Your task to perform on an android device: Search for "asus rog" on costco.com, select the first entry, and add it to the cart. Image 0: 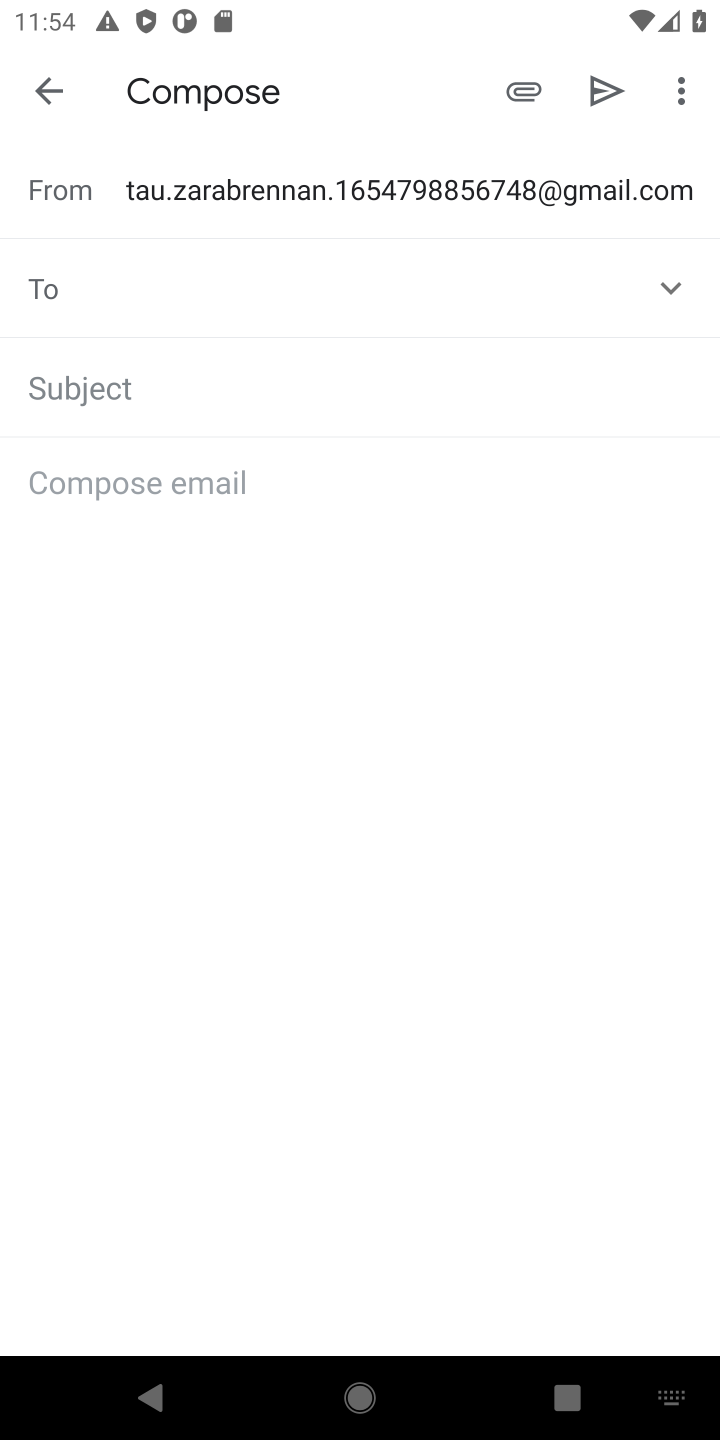
Step 0: press home button
Your task to perform on an android device: Search for "asus rog" on costco.com, select the first entry, and add it to the cart. Image 1: 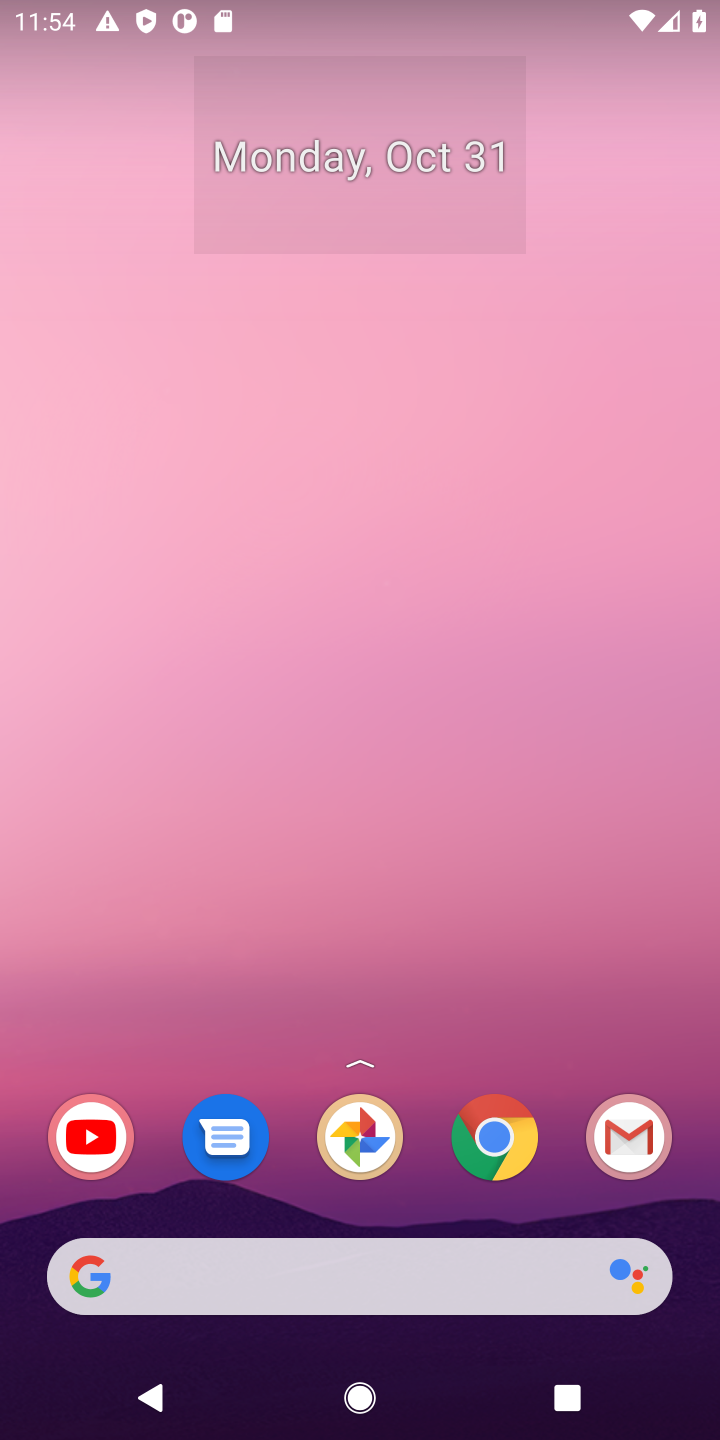
Step 1: click (492, 1138)
Your task to perform on an android device: Search for "asus rog" on costco.com, select the first entry, and add it to the cart. Image 2: 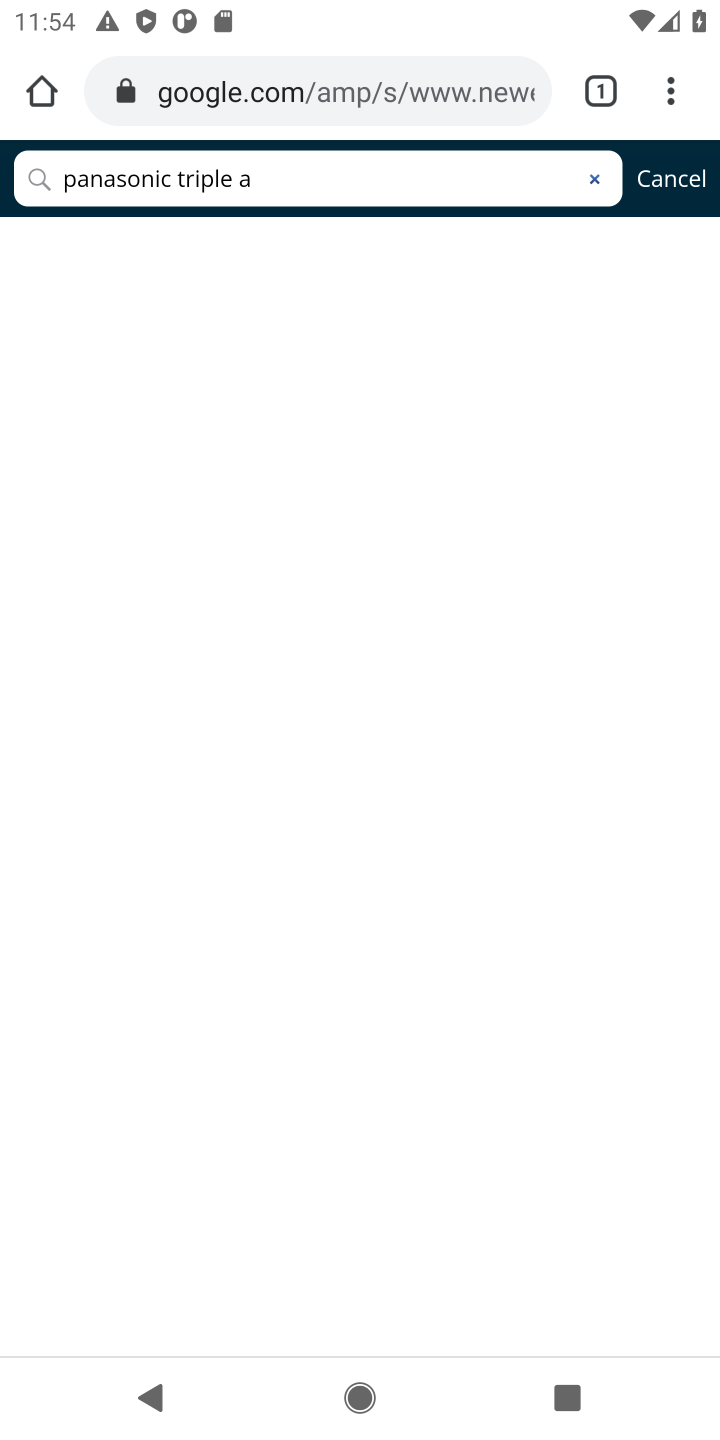
Step 2: click (448, 96)
Your task to perform on an android device: Search for "asus rog" on costco.com, select the first entry, and add it to the cart. Image 3: 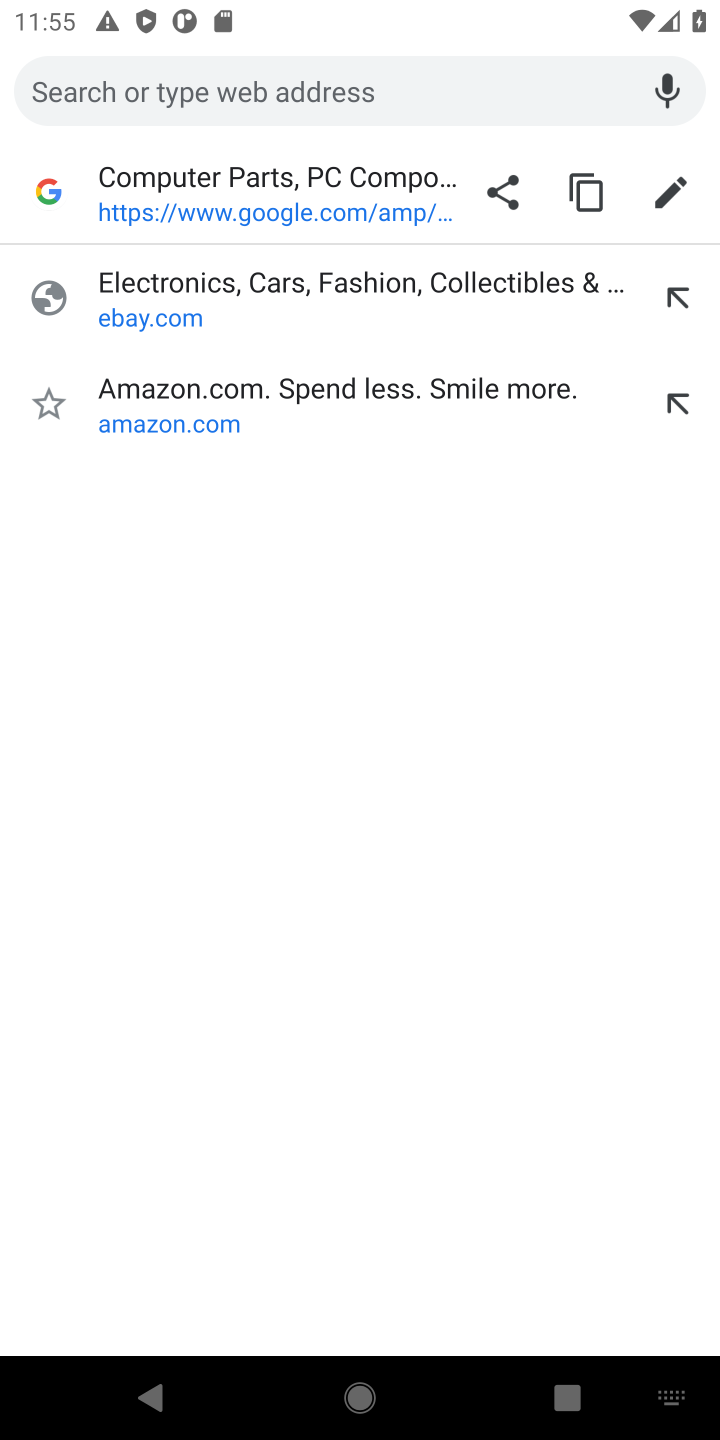
Step 3: type "costco.com"
Your task to perform on an android device: Search for "asus rog" on costco.com, select the first entry, and add it to the cart. Image 4: 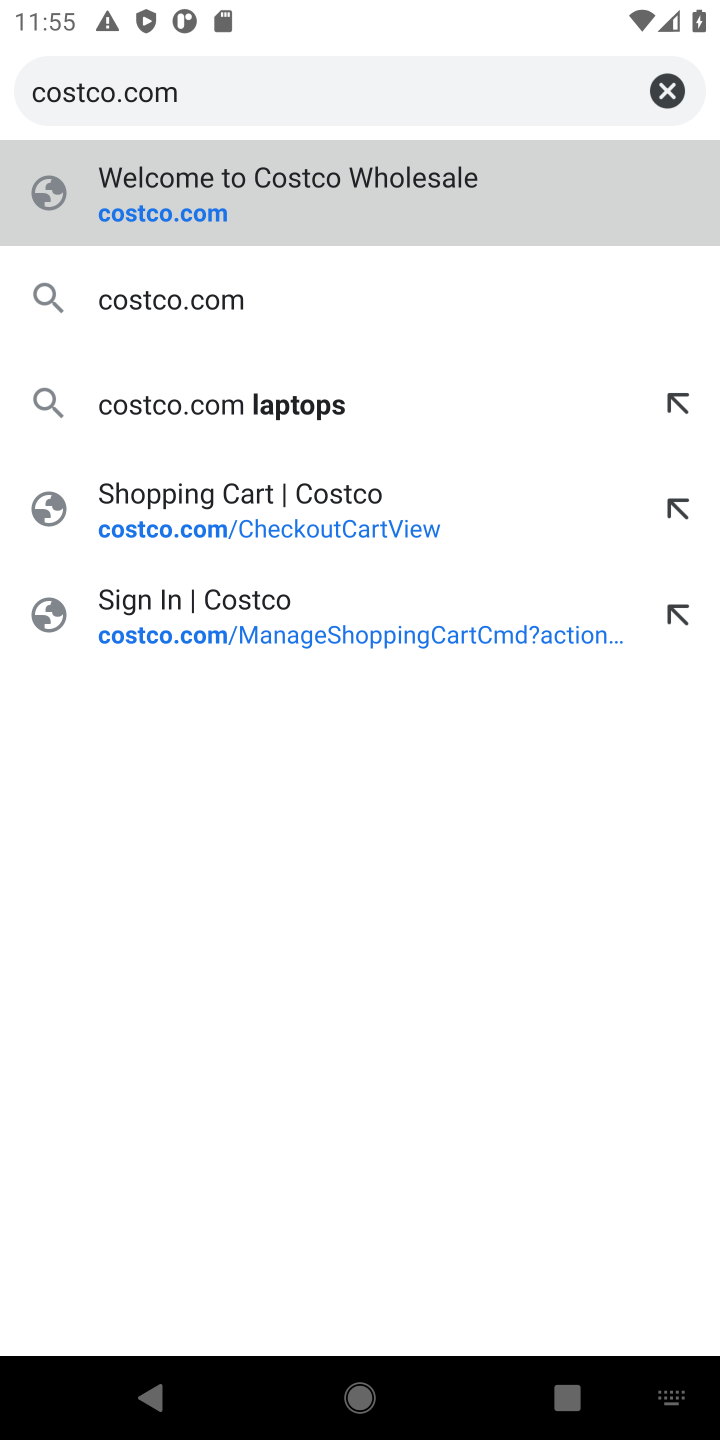
Step 4: click (218, 304)
Your task to perform on an android device: Search for "asus rog" on costco.com, select the first entry, and add it to the cart. Image 5: 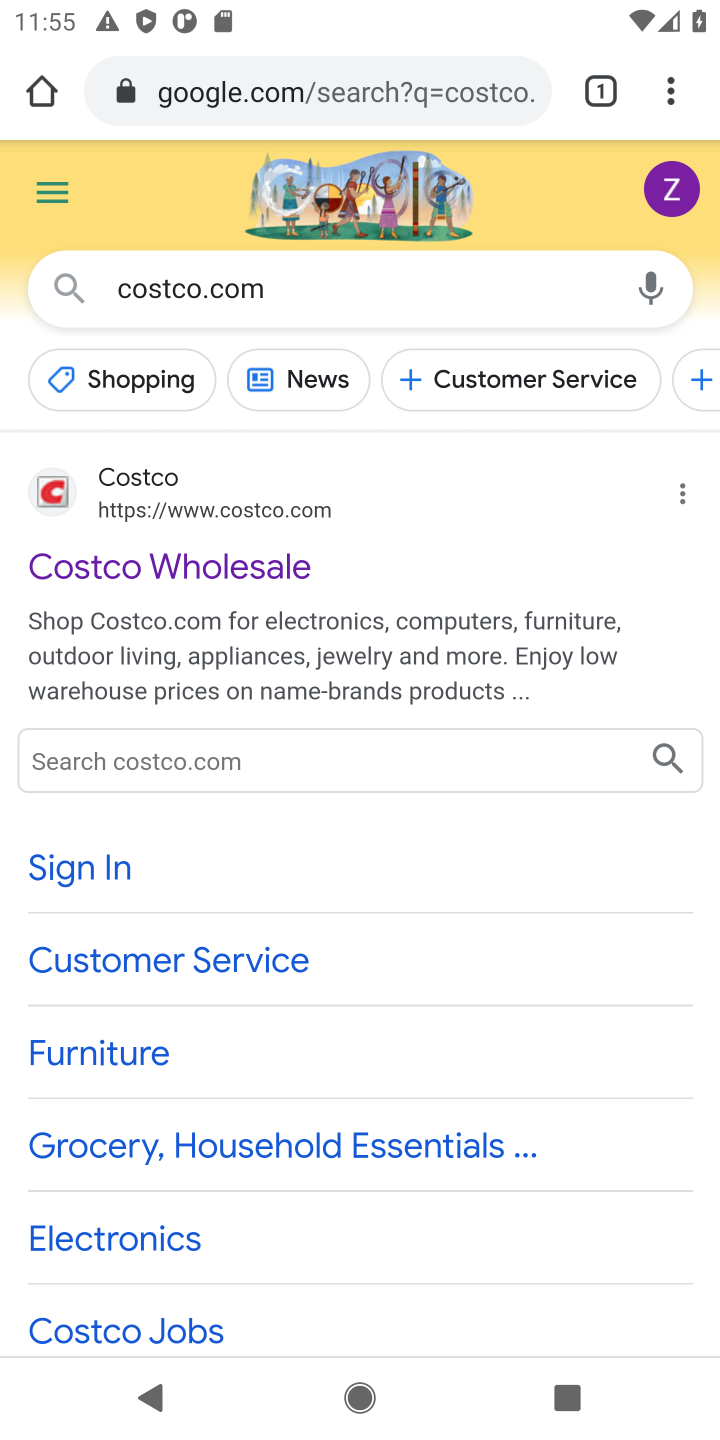
Step 5: click (207, 564)
Your task to perform on an android device: Search for "asus rog" on costco.com, select the first entry, and add it to the cart. Image 6: 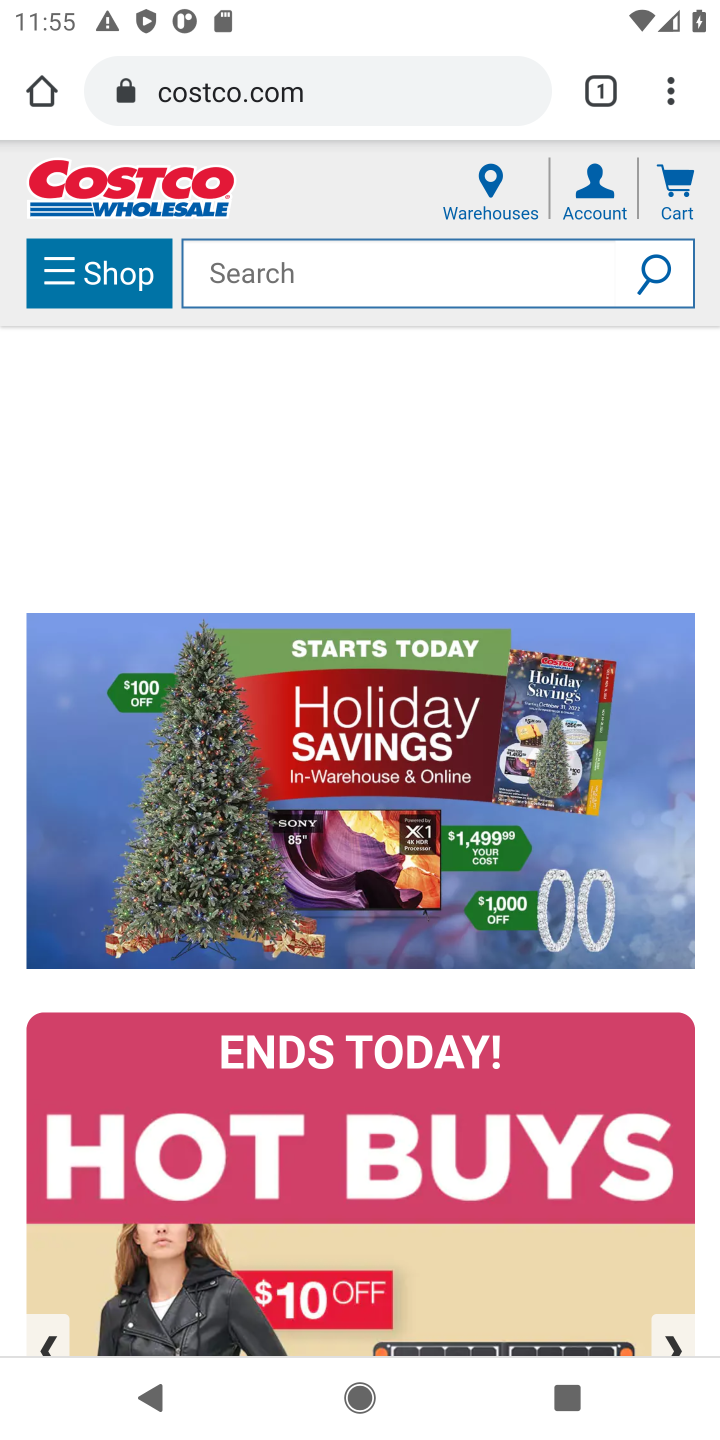
Step 6: click (430, 267)
Your task to perform on an android device: Search for "asus rog" on costco.com, select the first entry, and add it to the cart. Image 7: 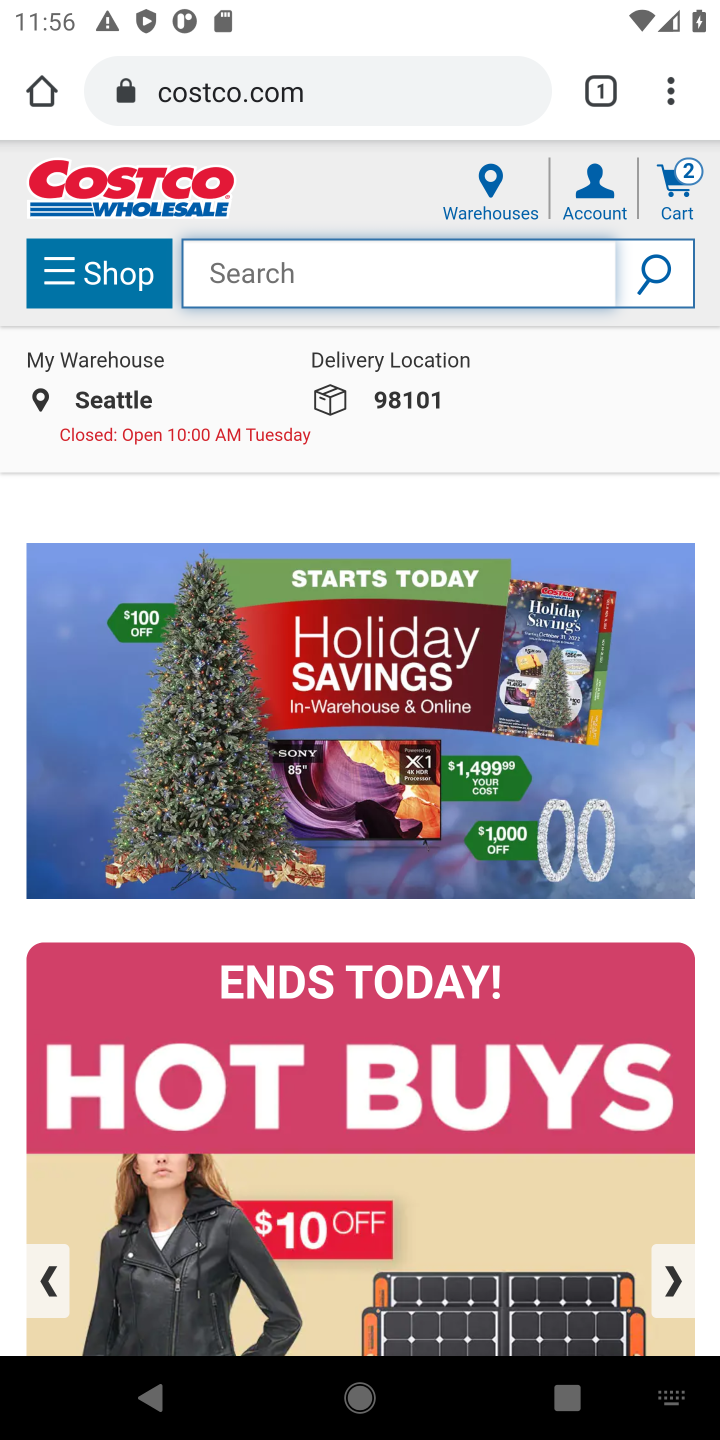
Step 7: type "asus rog"
Your task to perform on an android device: Search for "asus rog" on costco.com, select the first entry, and add it to the cart. Image 8: 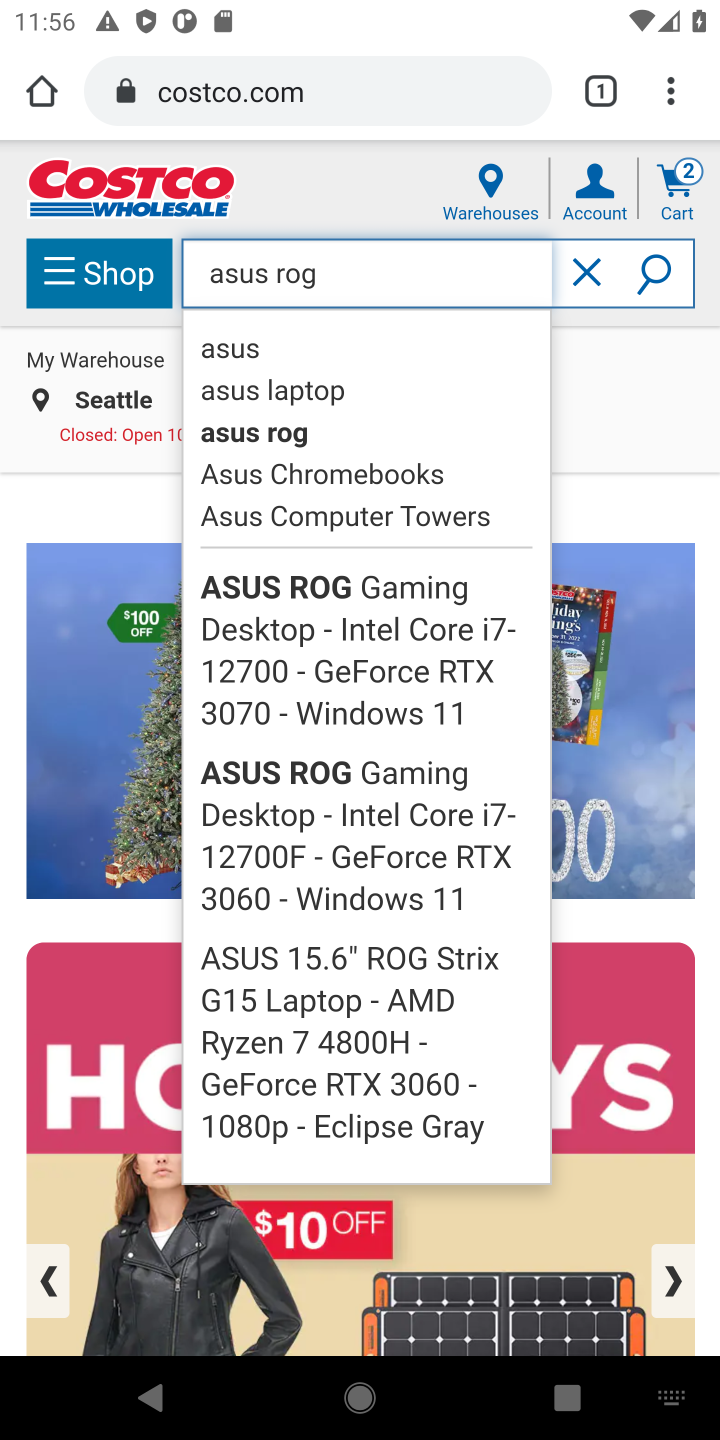
Step 8: click (661, 282)
Your task to perform on an android device: Search for "asus rog" on costco.com, select the first entry, and add it to the cart. Image 9: 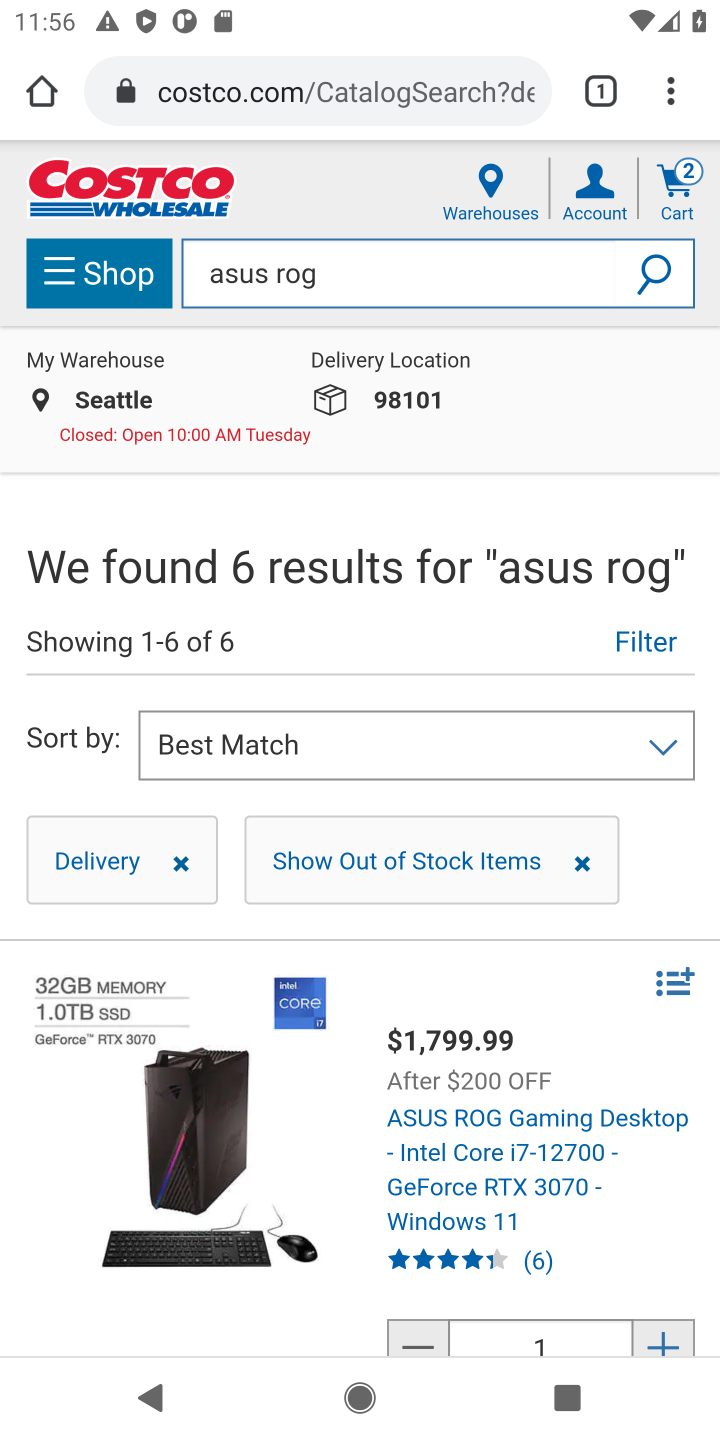
Step 9: click (525, 1120)
Your task to perform on an android device: Search for "asus rog" on costco.com, select the first entry, and add it to the cart. Image 10: 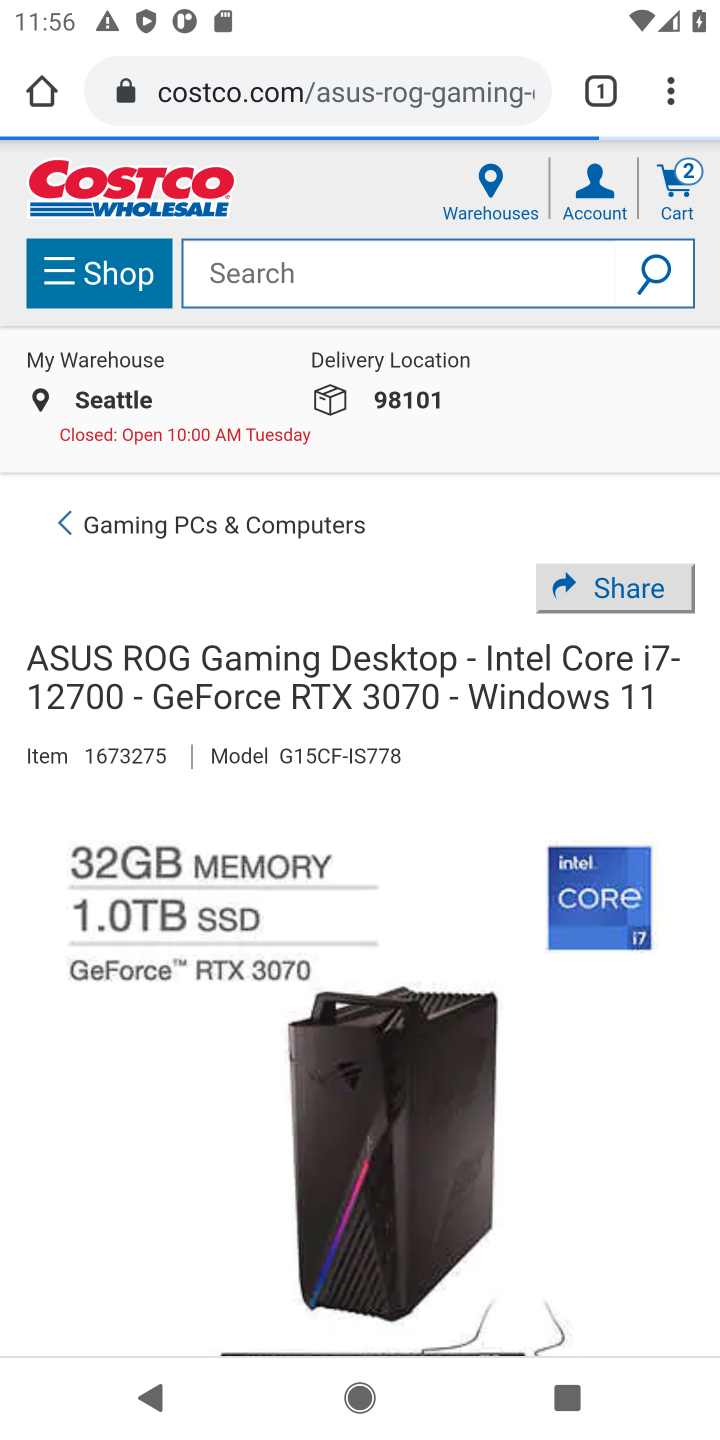
Step 10: drag from (214, 1060) to (198, 369)
Your task to perform on an android device: Search for "asus rog" on costco.com, select the first entry, and add it to the cart. Image 11: 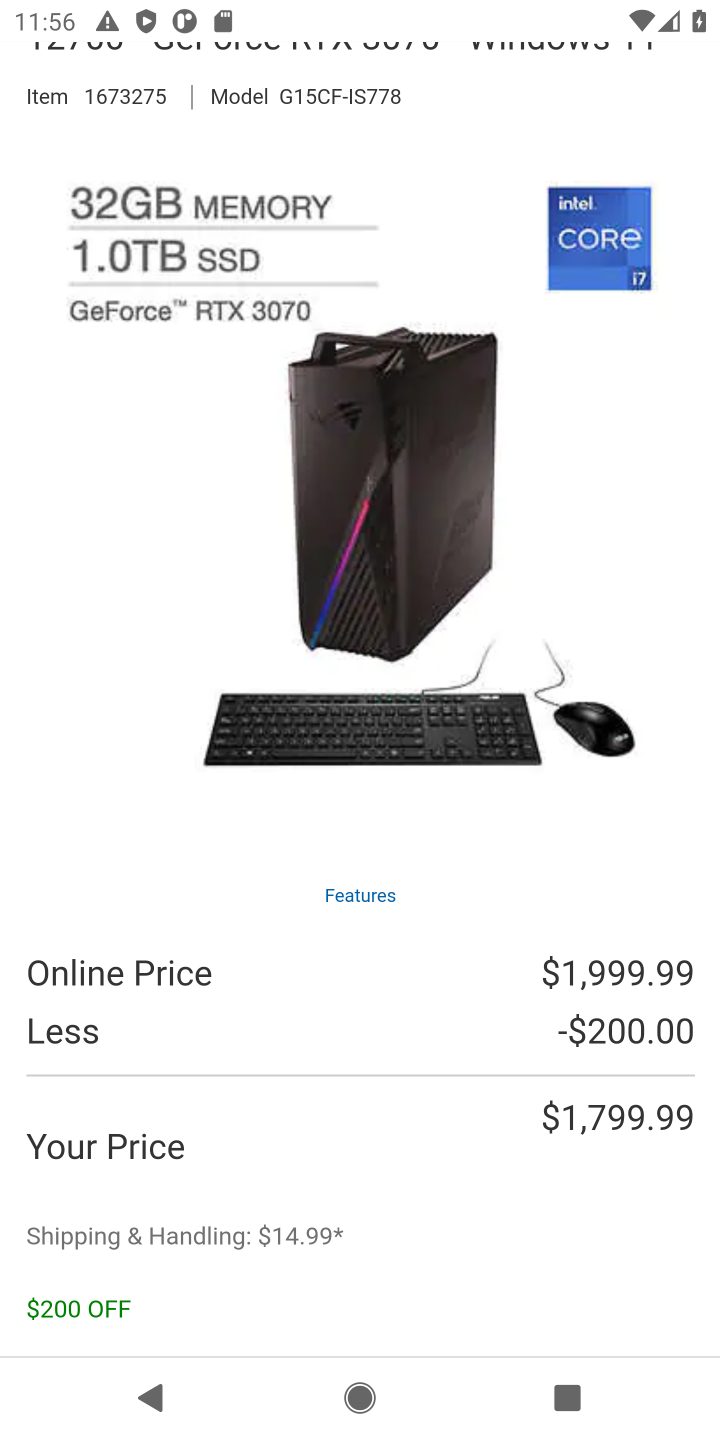
Step 11: click (473, 1037)
Your task to perform on an android device: Search for "asus rog" on costco.com, select the first entry, and add it to the cart. Image 12: 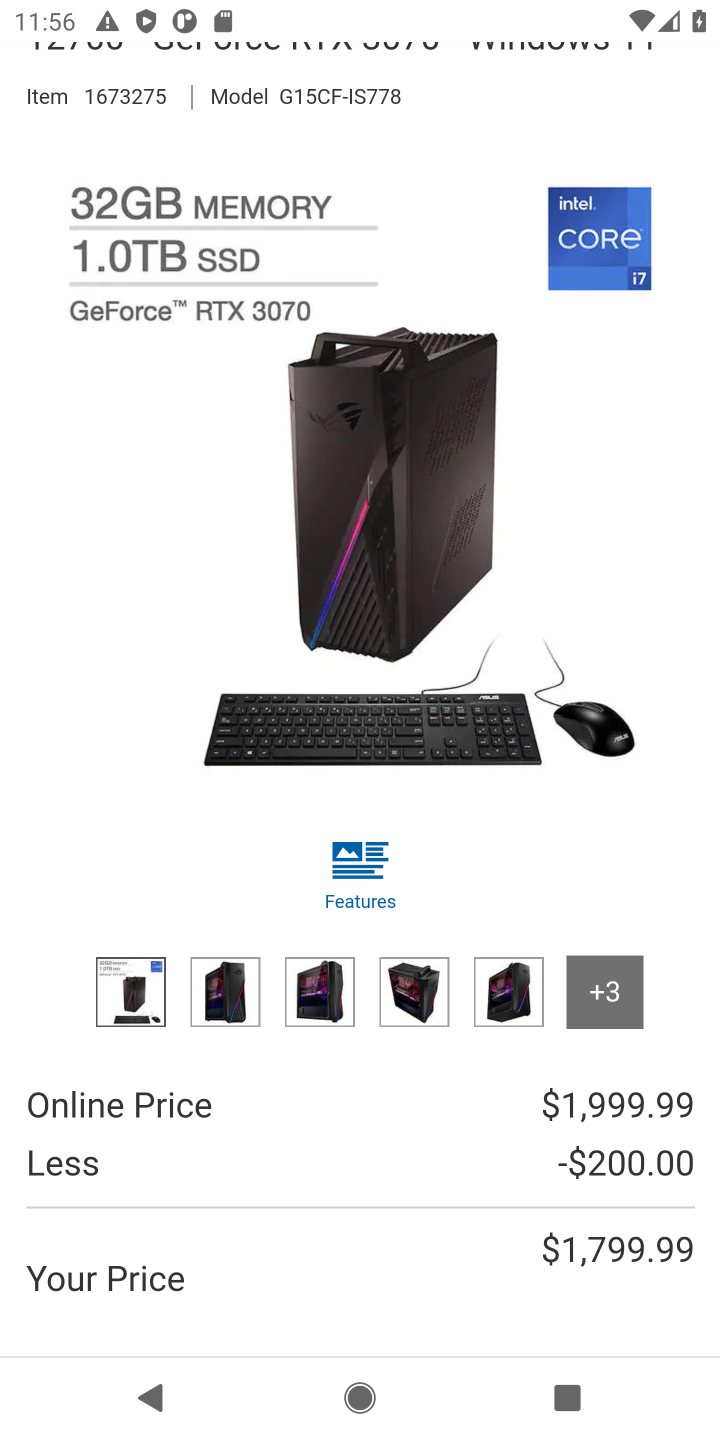
Step 12: drag from (527, 739) to (557, 448)
Your task to perform on an android device: Search for "asus rog" on costco.com, select the first entry, and add it to the cart. Image 13: 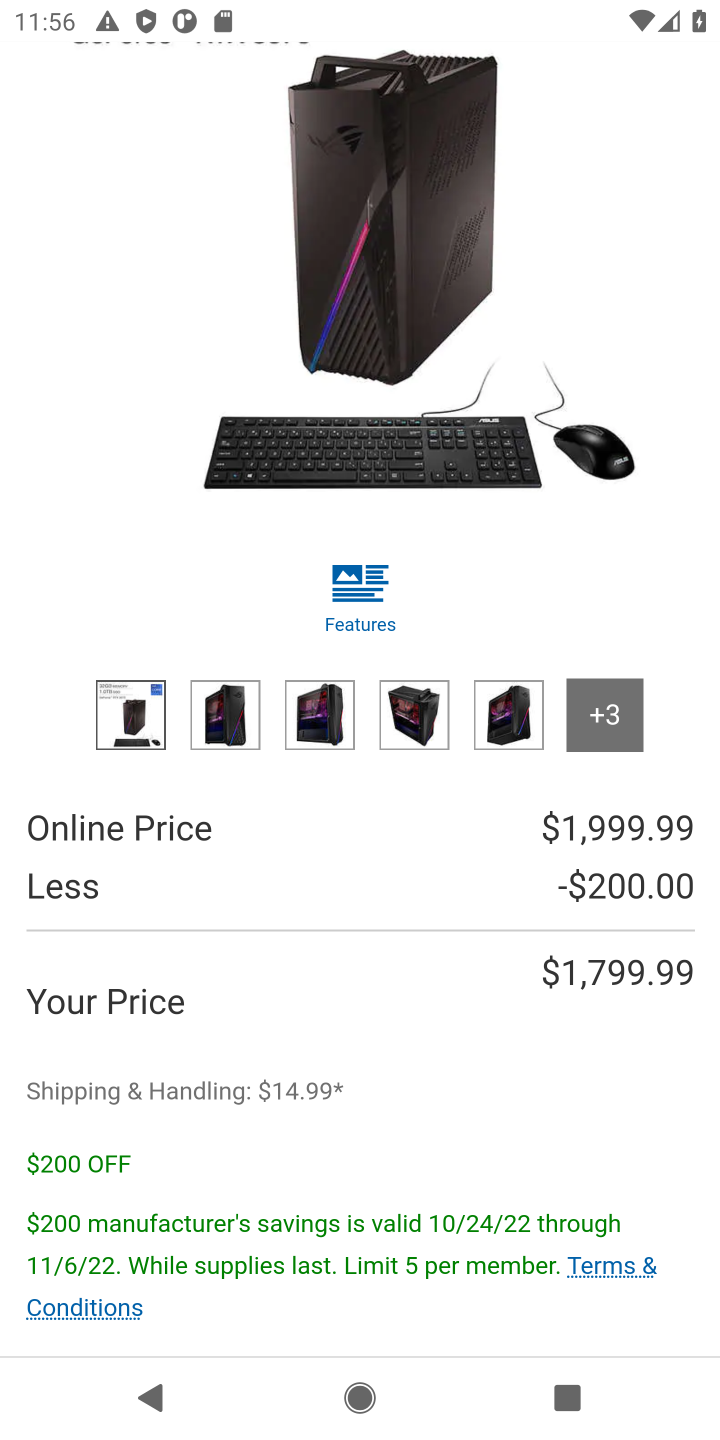
Step 13: drag from (424, 1026) to (536, 382)
Your task to perform on an android device: Search for "asus rog" on costco.com, select the first entry, and add it to the cart. Image 14: 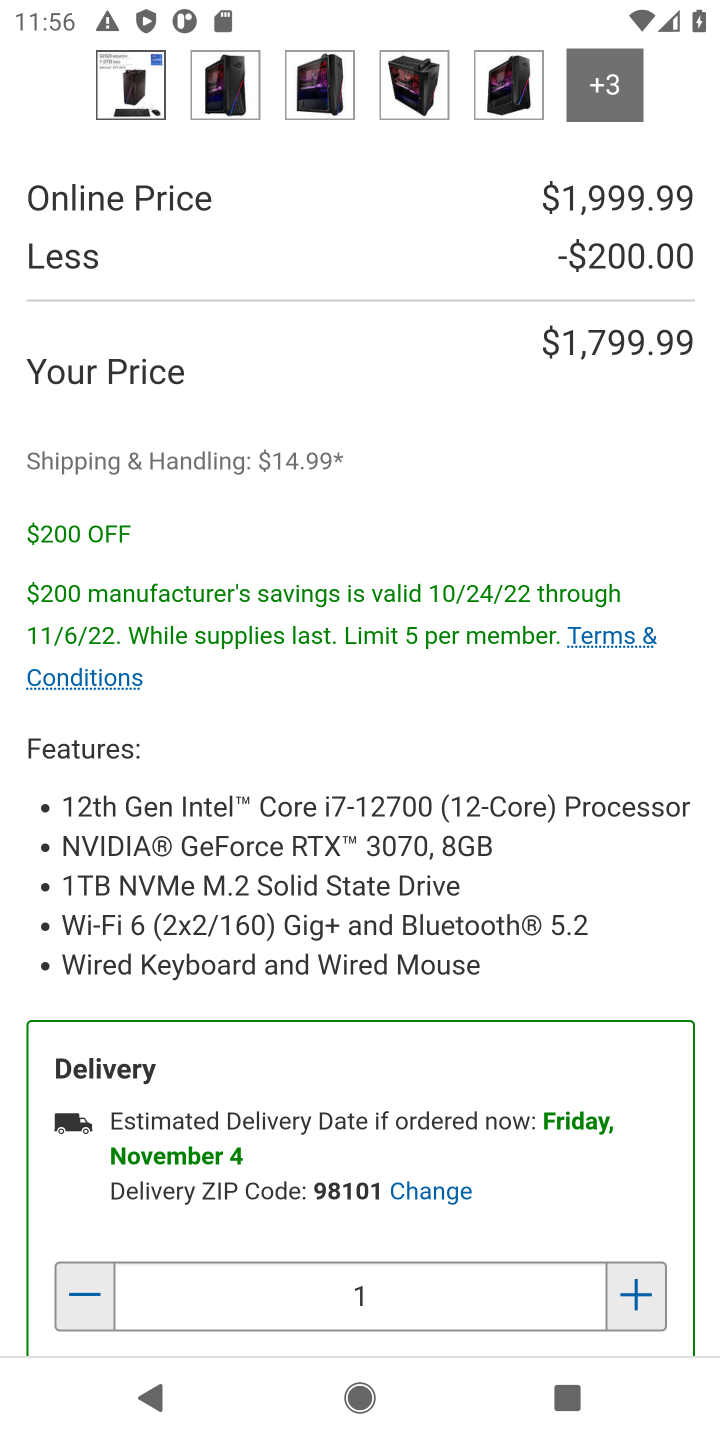
Step 14: drag from (388, 859) to (458, 406)
Your task to perform on an android device: Search for "asus rog" on costco.com, select the first entry, and add it to the cart. Image 15: 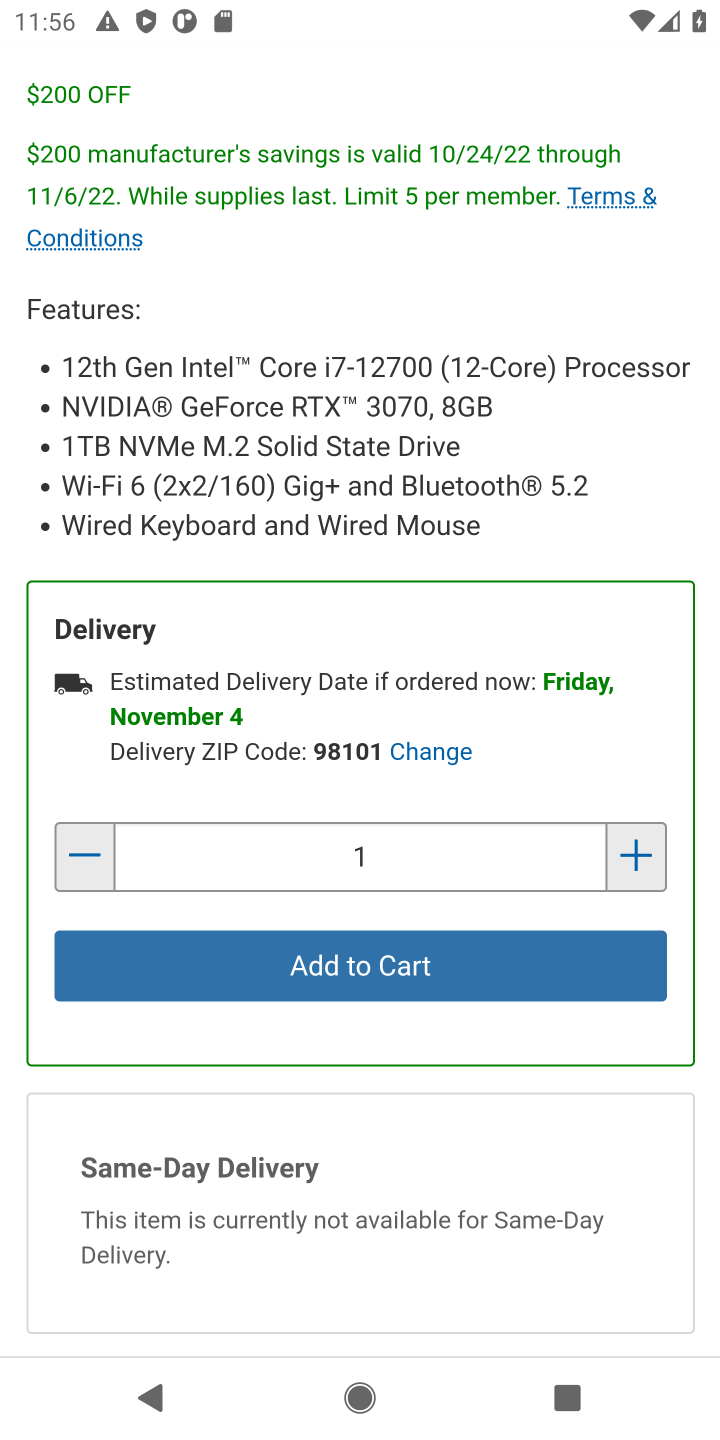
Step 15: click (358, 967)
Your task to perform on an android device: Search for "asus rog" on costco.com, select the first entry, and add it to the cart. Image 16: 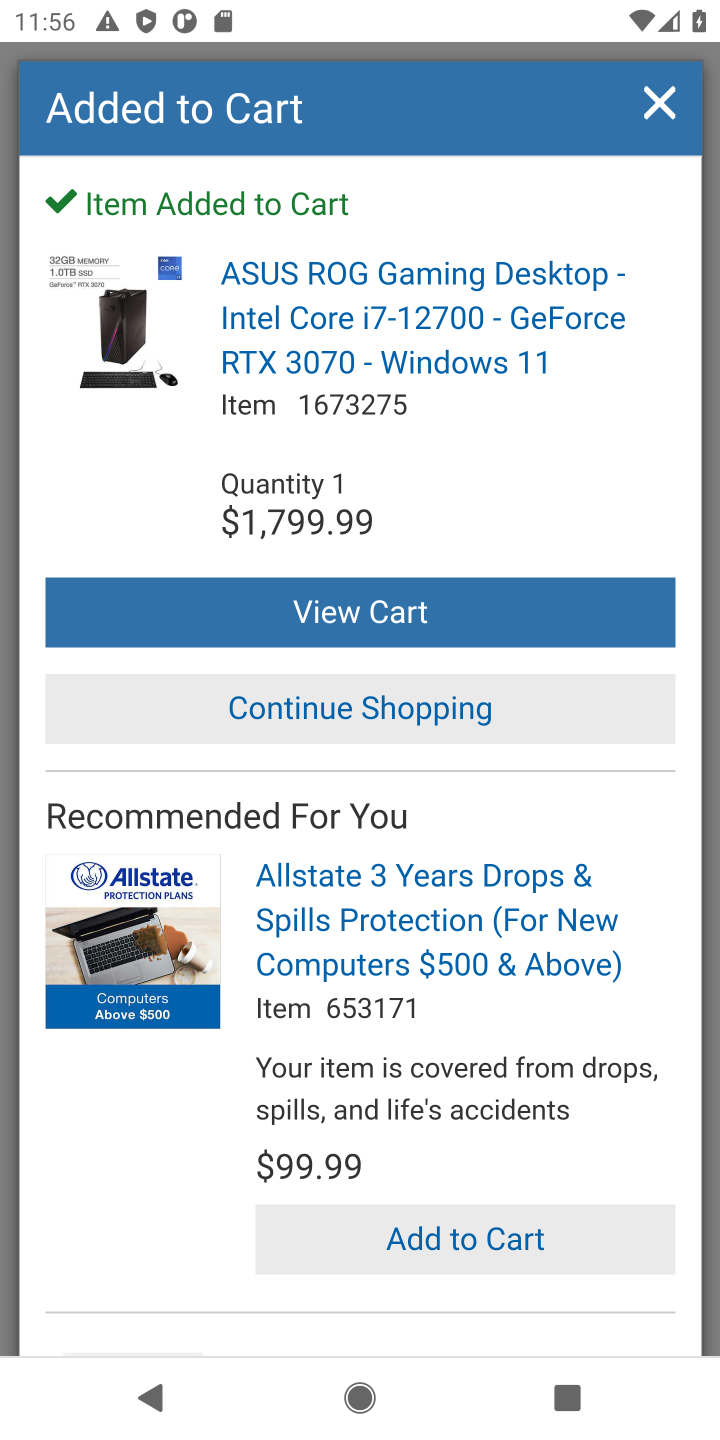
Step 16: click (425, 621)
Your task to perform on an android device: Search for "asus rog" on costco.com, select the first entry, and add it to the cart. Image 17: 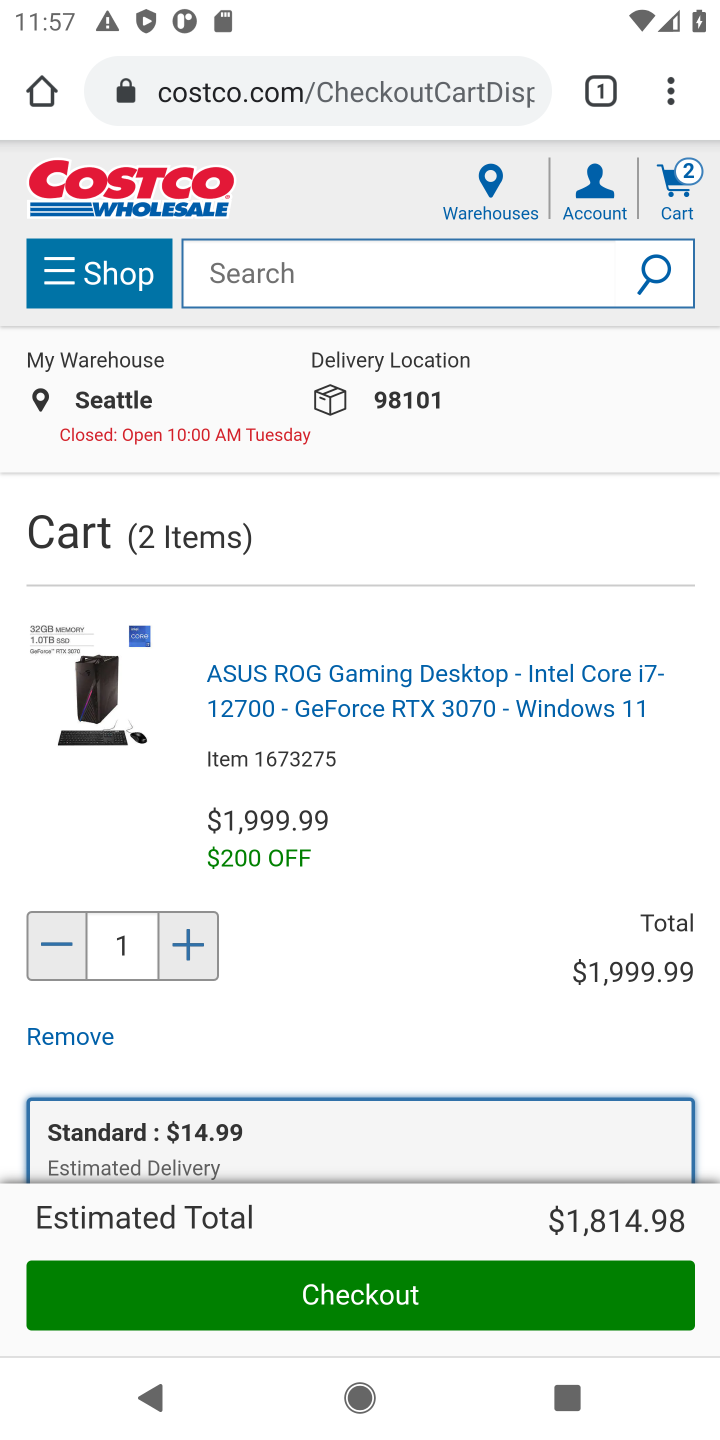
Step 17: task complete